Your task to perform on an android device: turn off smart reply in the gmail app Image 0: 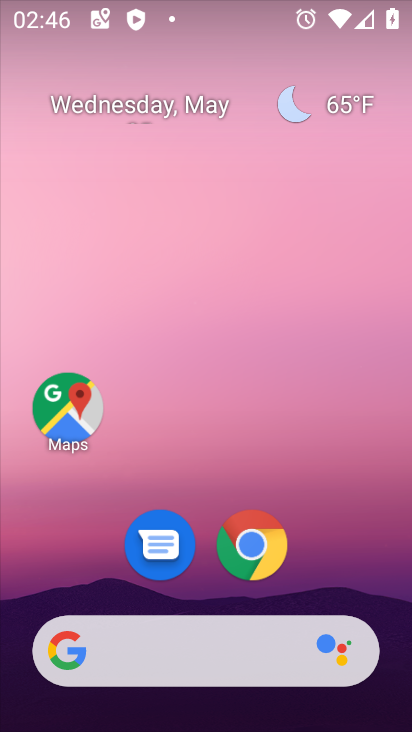
Step 0: drag from (336, 452) to (225, 16)
Your task to perform on an android device: turn off smart reply in the gmail app Image 1: 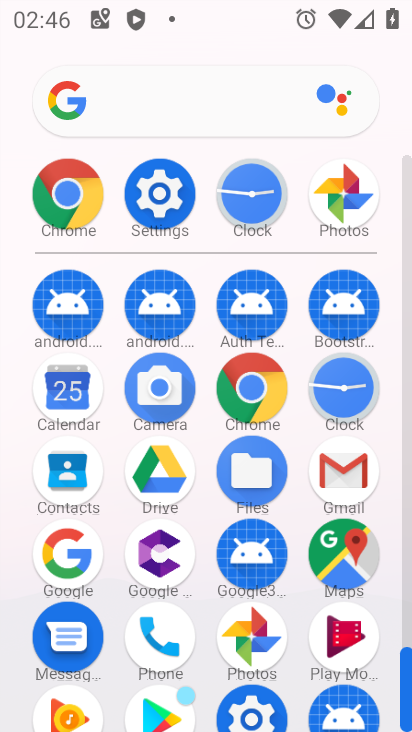
Step 1: click (351, 459)
Your task to perform on an android device: turn off smart reply in the gmail app Image 2: 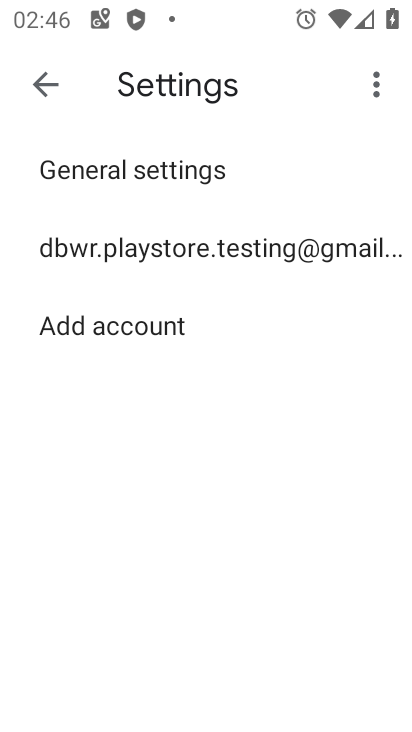
Step 2: click (182, 252)
Your task to perform on an android device: turn off smart reply in the gmail app Image 3: 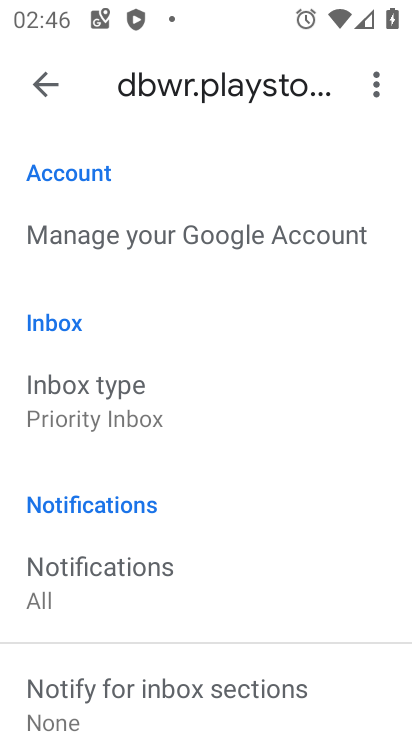
Step 3: drag from (235, 481) to (240, 46)
Your task to perform on an android device: turn off smart reply in the gmail app Image 4: 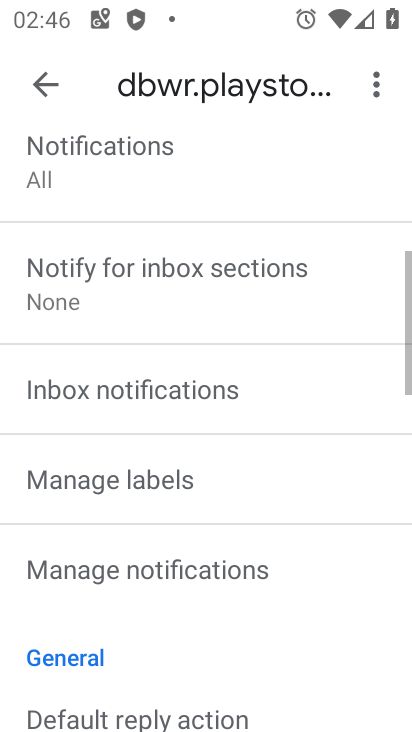
Step 4: drag from (175, 603) to (259, 142)
Your task to perform on an android device: turn off smart reply in the gmail app Image 5: 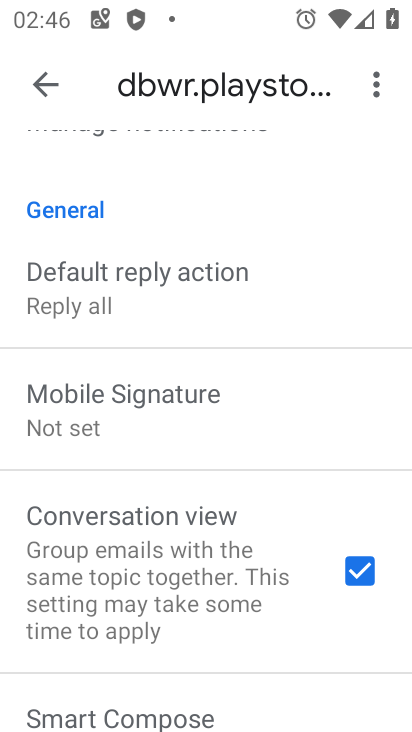
Step 5: drag from (255, 555) to (227, 182)
Your task to perform on an android device: turn off smart reply in the gmail app Image 6: 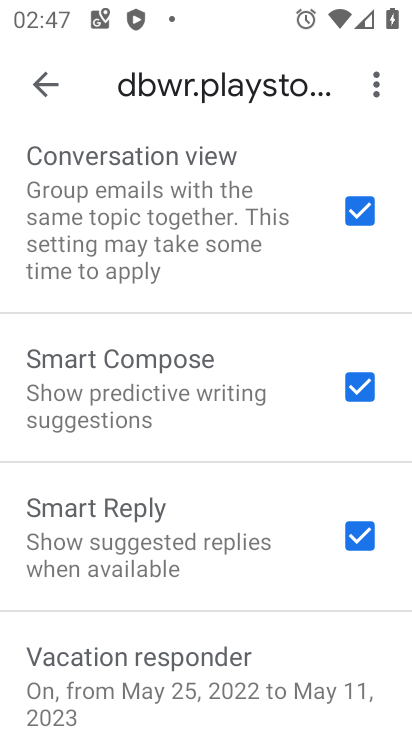
Step 6: click (365, 538)
Your task to perform on an android device: turn off smart reply in the gmail app Image 7: 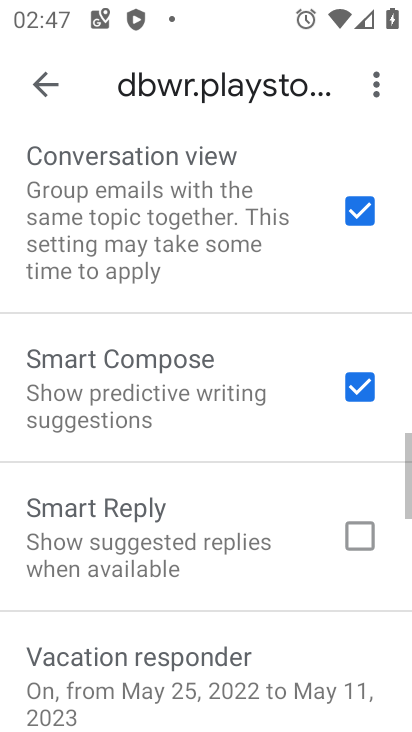
Step 7: task complete